Your task to perform on an android device: turn on the 24-hour format for clock Image 0: 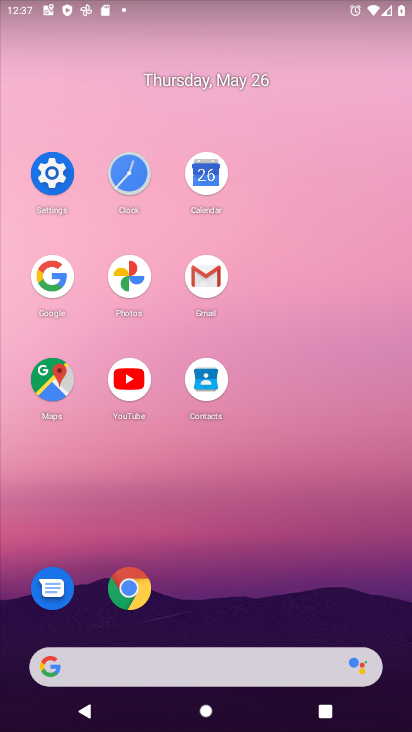
Step 0: click (130, 183)
Your task to perform on an android device: turn on the 24-hour format for clock Image 1: 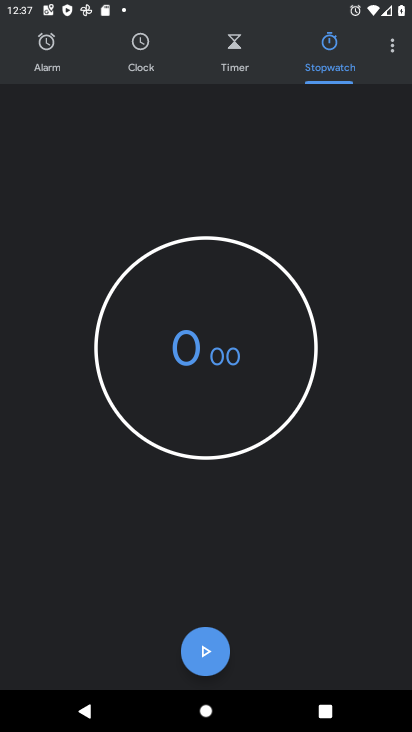
Step 1: click (393, 41)
Your task to perform on an android device: turn on the 24-hour format for clock Image 2: 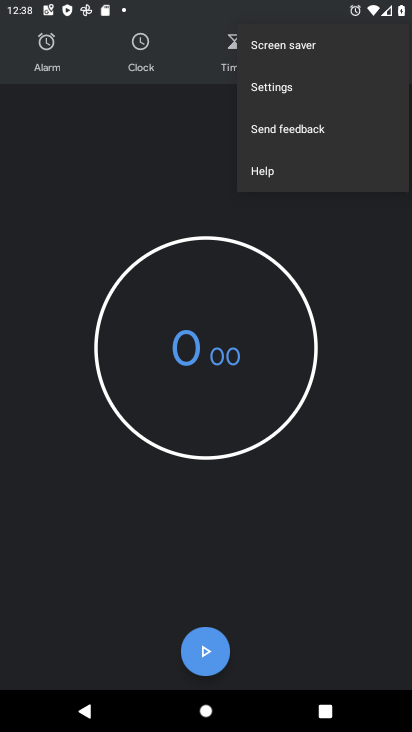
Step 2: click (290, 88)
Your task to perform on an android device: turn on the 24-hour format for clock Image 3: 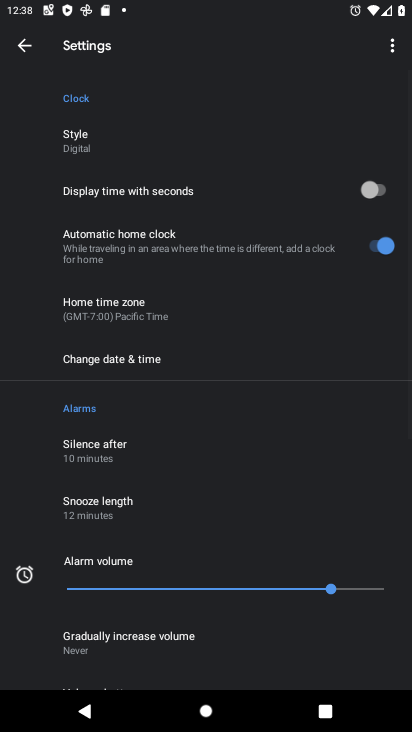
Step 3: click (165, 371)
Your task to perform on an android device: turn on the 24-hour format for clock Image 4: 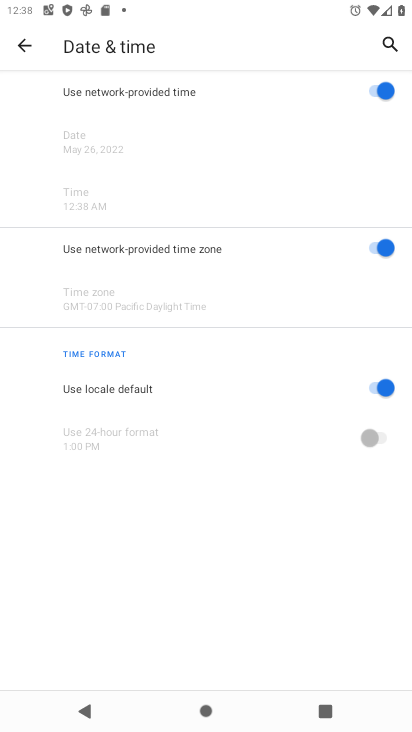
Step 4: click (392, 391)
Your task to perform on an android device: turn on the 24-hour format for clock Image 5: 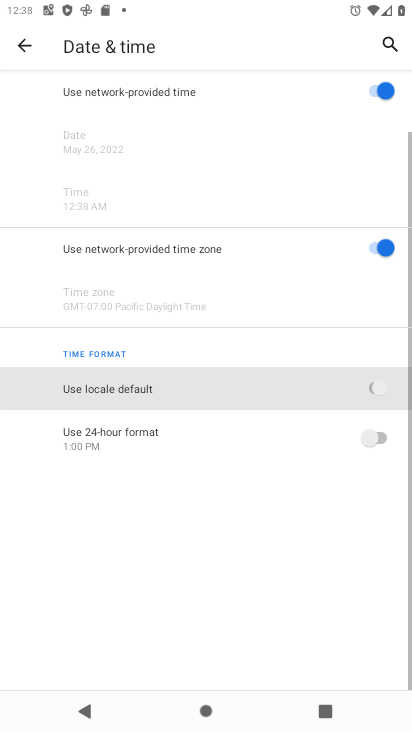
Step 5: click (358, 445)
Your task to perform on an android device: turn on the 24-hour format for clock Image 6: 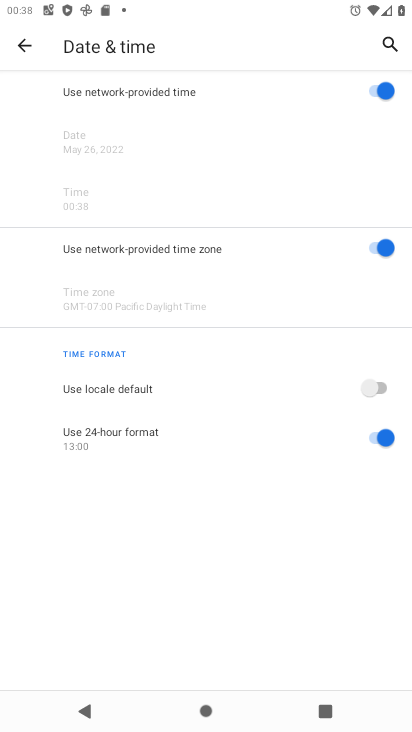
Step 6: task complete